Your task to perform on an android device: read, delete, or share a saved page in the chrome app Image 0: 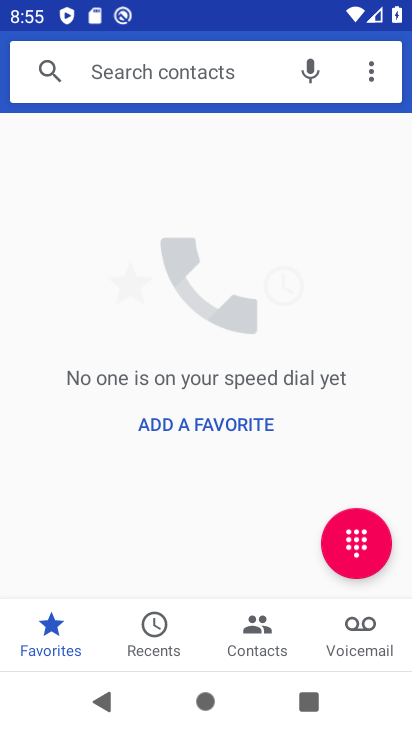
Step 0: press home button
Your task to perform on an android device: read, delete, or share a saved page in the chrome app Image 1: 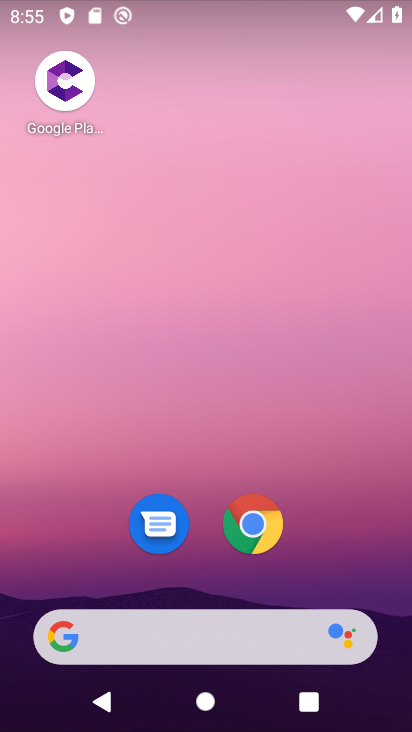
Step 1: click (260, 519)
Your task to perform on an android device: read, delete, or share a saved page in the chrome app Image 2: 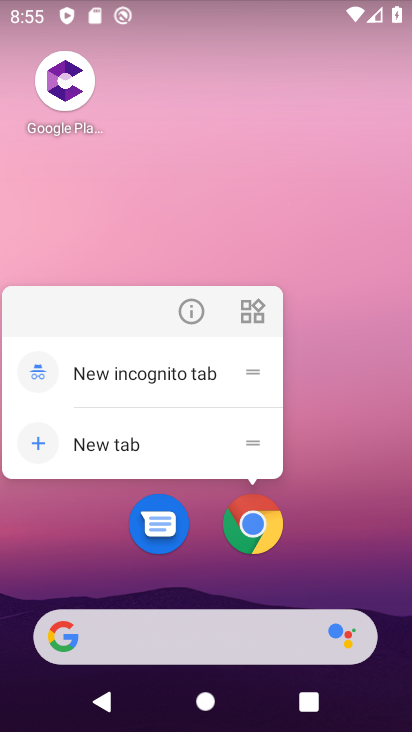
Step 2: click (256, 524)
Your task to perform on an android device: read, delete, or share a saved page in the chrome app Image 3: 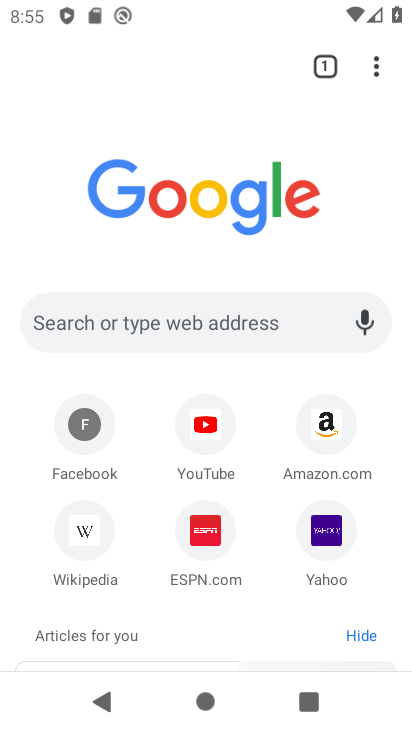
Step 3: click (374, 69)
Your task to perform on an android device: read, delete, or share a saved page in the chrome app Image 4: 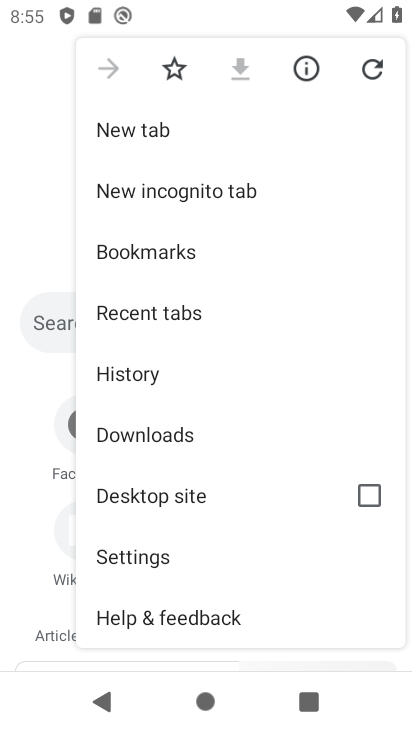
Step 4: click (173, 430)
Your task to perform on an android device: read, delete, or share a saved page in the chrome app Image 5: 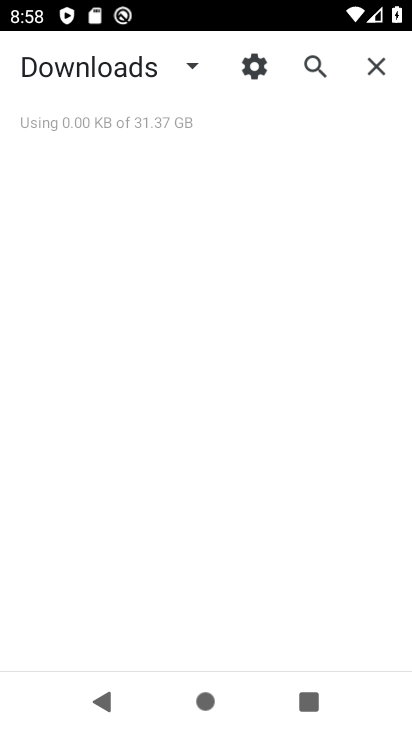
Step 5: task complete